Your task to perform on an android device: Open Google Chrome Image 0: 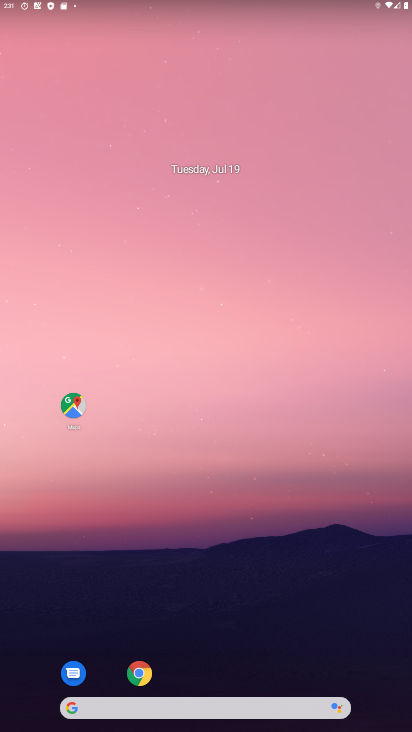
Step 0: click (140, 676)
Your task to perform on an android device: Open Google Chrome Image 1: 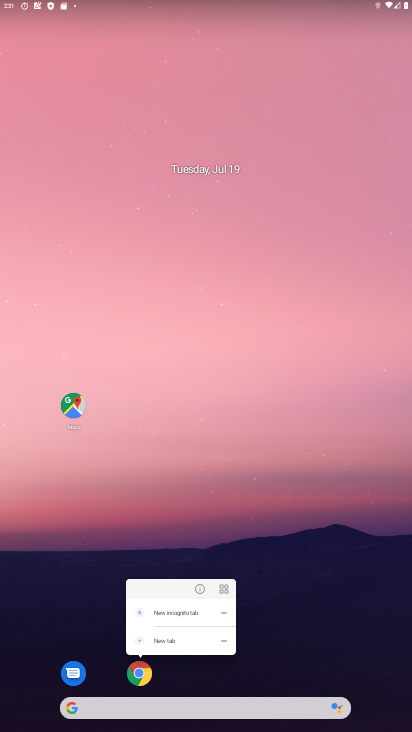
Step 1: click (143, 675)
Your task to perform on an android device: Open Google Chrome Image 2: 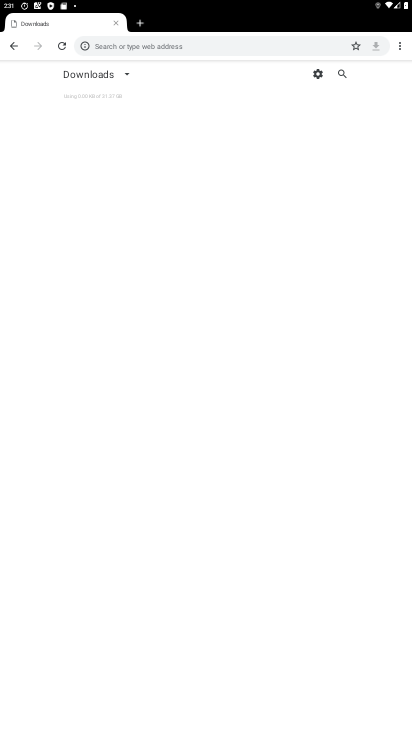
Step 2: click (137, 16)
Your task to perform on an android device: Open Google Chrome Image 3: 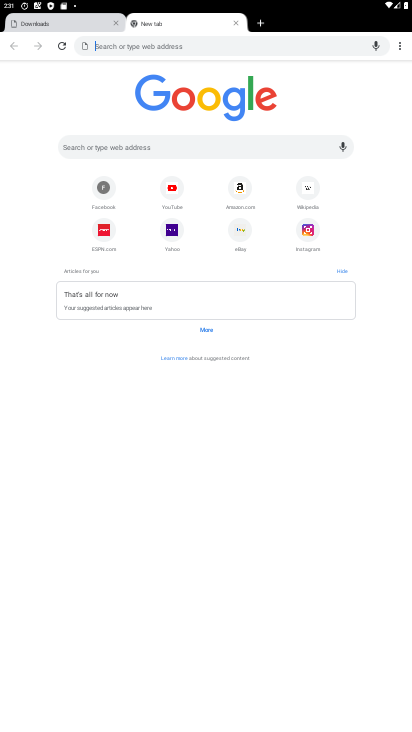
Step 3: click (117, 22)
Your task to perform on an android device: Open Google Chrome Image 4: 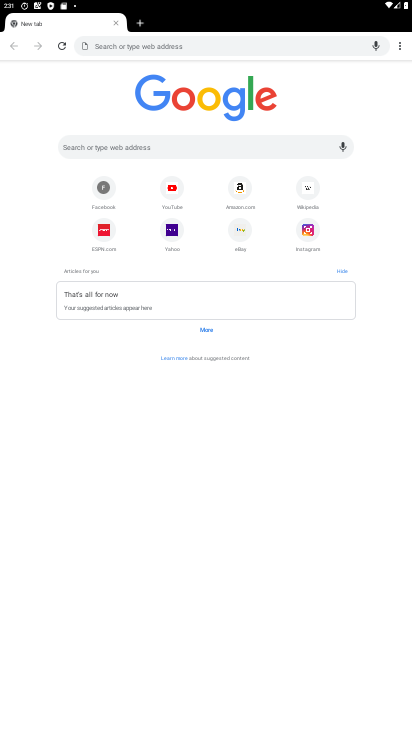
Step 4: task complete